Your task to perform on an android device: Open Google Chrome and click the shortcut for Amazon.com Image 0: 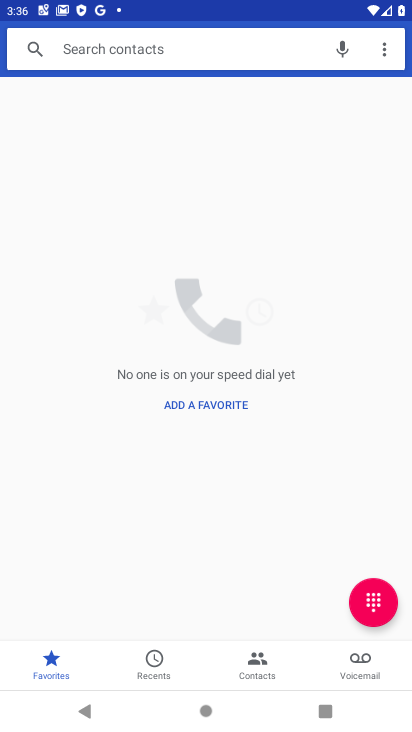
Step 0: press home button
Your task to perform on an android device: Open Google Chrome and click the shortcut for Amazon.com Image 1: 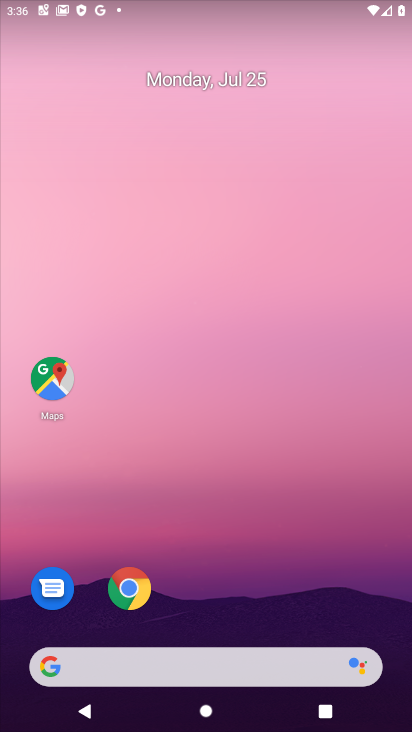
Step 1: click (128, 583)
Your task to perform on an android device: Open Google Chrome and click the shortcut for Amazon.com Image 2: 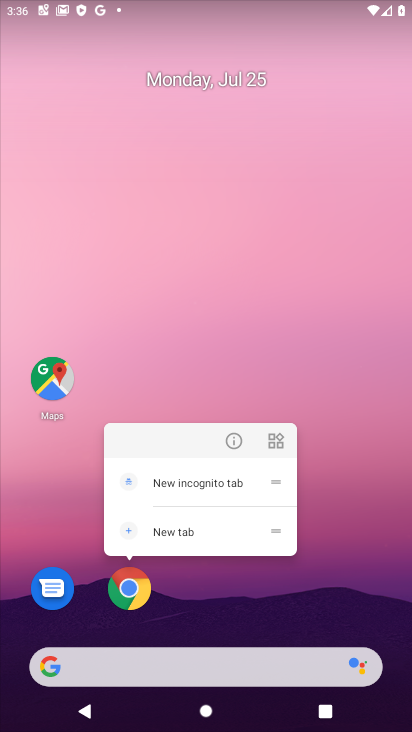
Step 2: click (128, 583)
Your task to perform on an android device: Open Google Chrome and click the shortcut for Amazon.com Image 3: 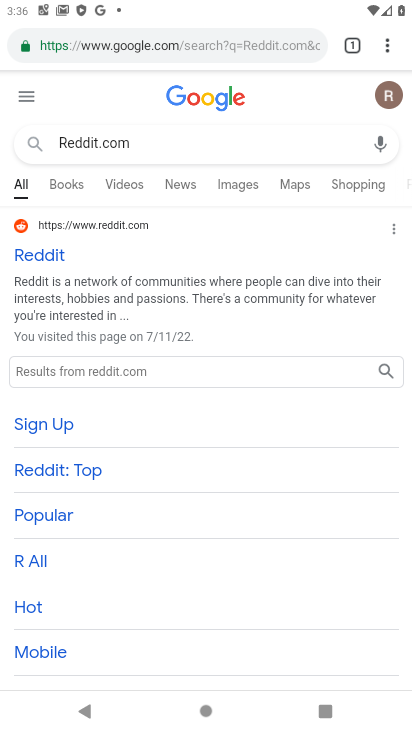
Step 3: click (287, 40)
Your task to perform on an android device: Open Google Chrome and click the shortcut for Amazon.com Image 4: 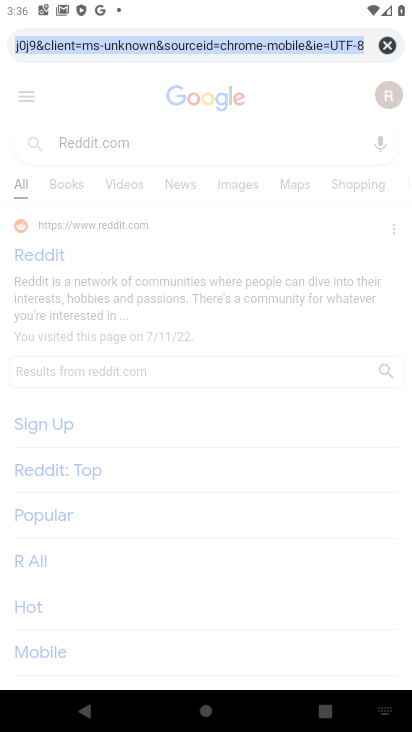
Step 4: click (381, 39)
Your task to perform on an android device: Open Google Chrome and click the shortcut for Amazon.com Image 5: 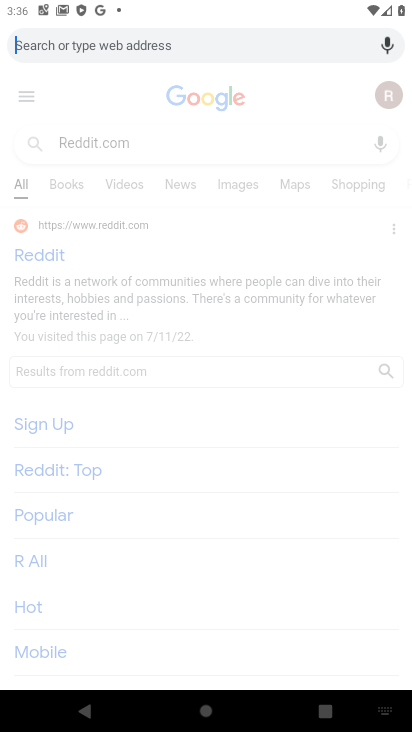
Step 5: type "Amazon.com"
Your task to perform on an android device: Open Google Chrome and click the shortcut for Amazon.com Image 6: 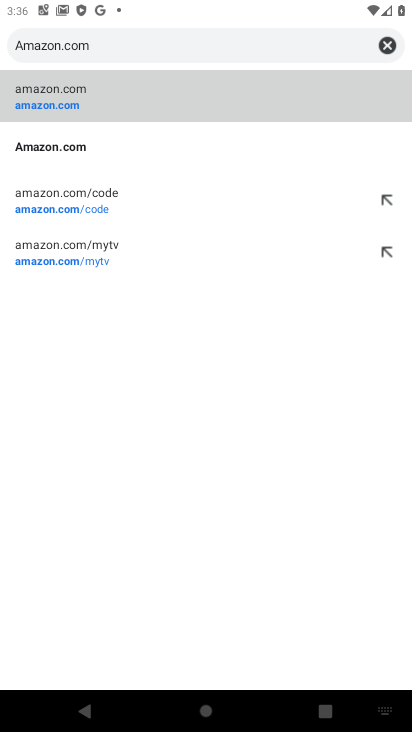
Step 6: click (74, 144)
Your task to perform on an android device: Open Google Chrome and click the shortcut for Amazon.com Image 7: 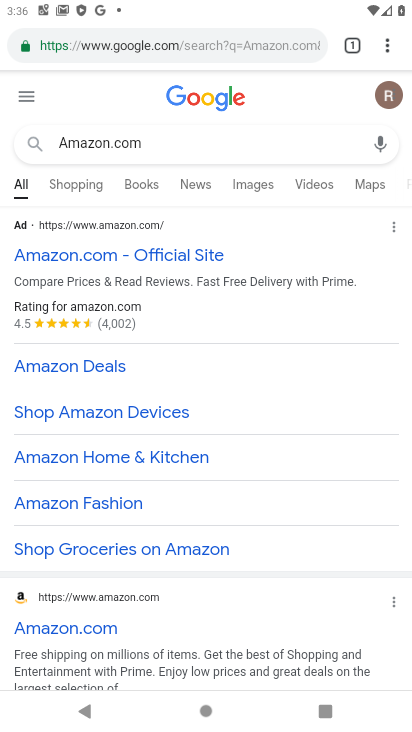
Step 7: task complete